Your task to perform on an android device: turn off priority inbox in the gmail app Image 0: 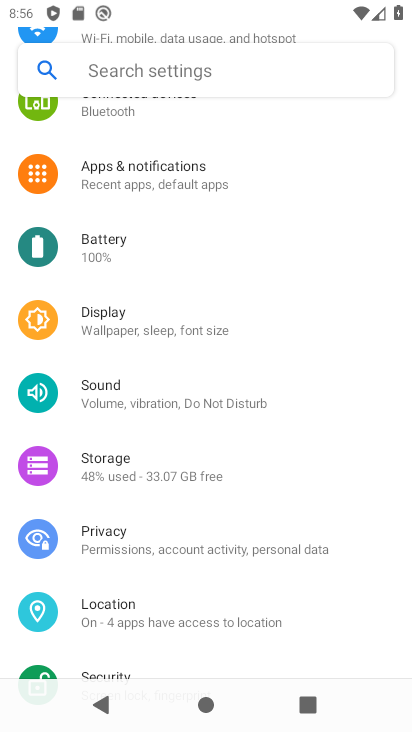
Step 0: press home button
Your task to perform on an android device: turn off priority inbox in the gmail app Image 1: 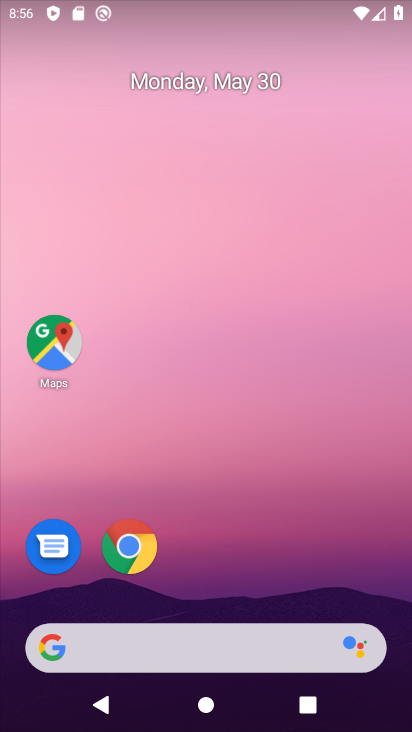
Step 1: drag from (222, 601) to (250, 18)
Your task to perform on an android device: turn off priority inbox in the gmail app Image 2: 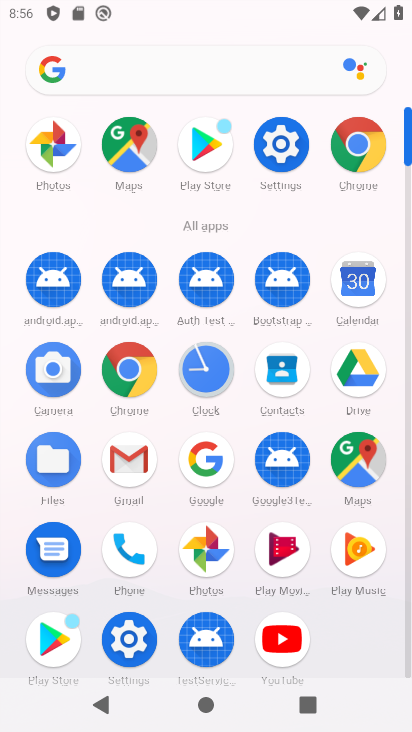
Step 2: click (124, 467)
Your task to perform on an android device: turn off priority inbox in the gmail app Image 3: 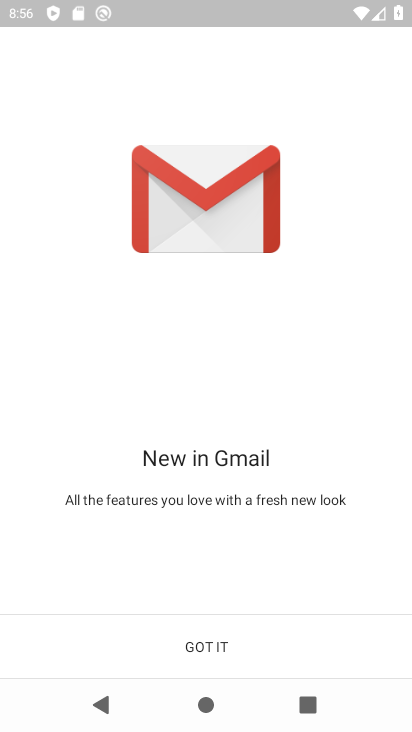
Step 3: click (236, 631)
Your task to perform on an android device: turn off priority inbox in the gmail app Image 4: 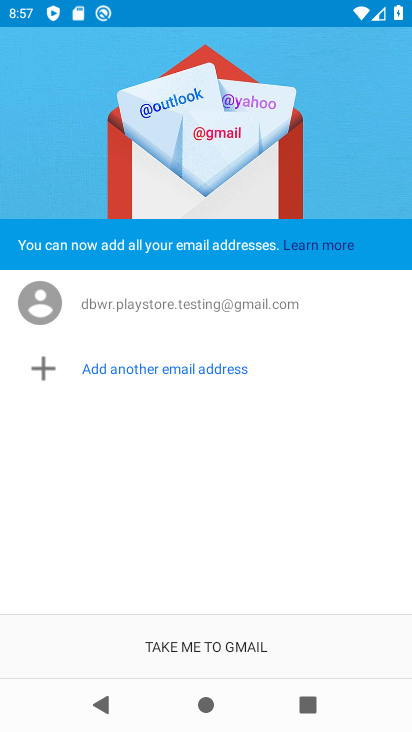
Step 4: click (234, 648)
Your task to perform on an android device: turn off priority inbox in the gmail app Image 5: 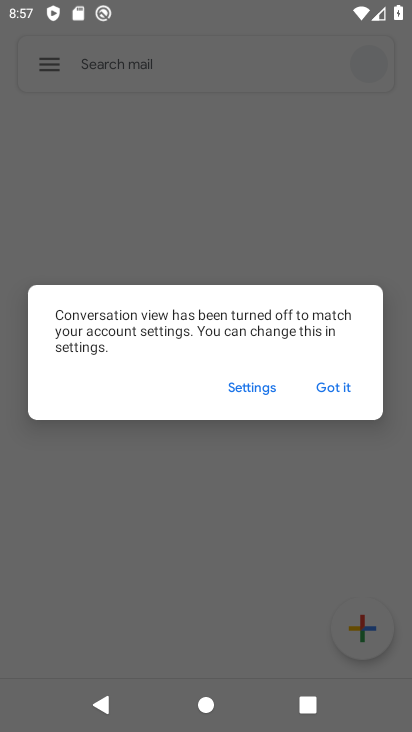
Step 5: click (339, 387)
Your task to perform on an android device: turn off priority inbox in the gmail app Image 6: 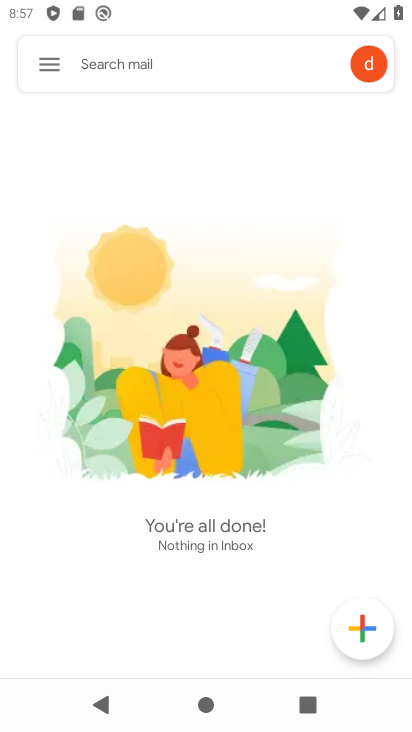
Step 6: click (57, 64)
Your task to perform on an android device: turn off priority inbox in the gmail app Image 7: 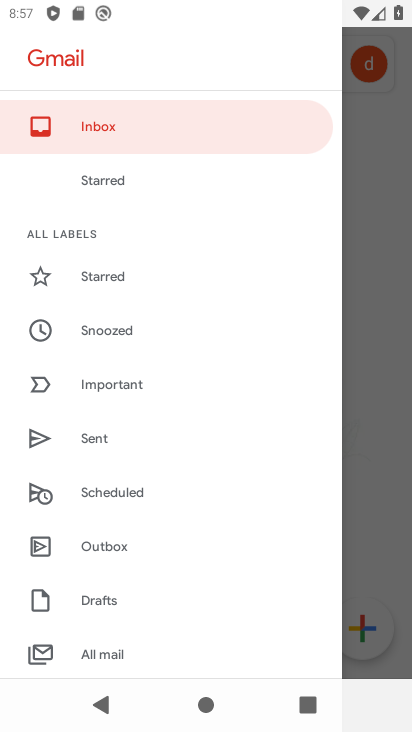
Step 7: drag from (149, 607) to (143, 161)
Your task to perform on an android device: turn off priority inbox in the gmail app Image 8: 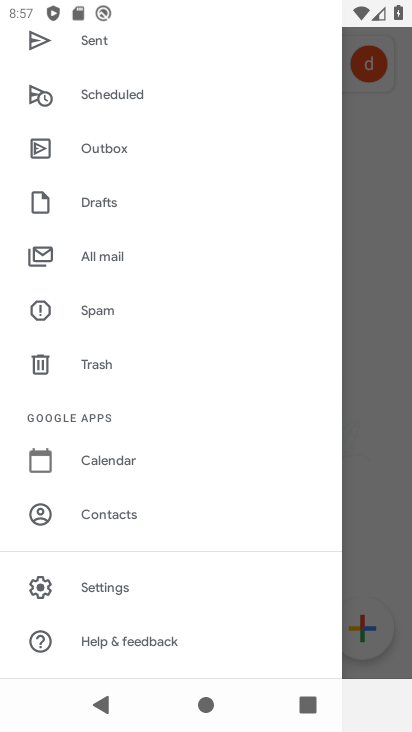
Step 8: click (94, 591)
Your task to perform on an android device: turn off priority inbox in the gmail app Image 9: 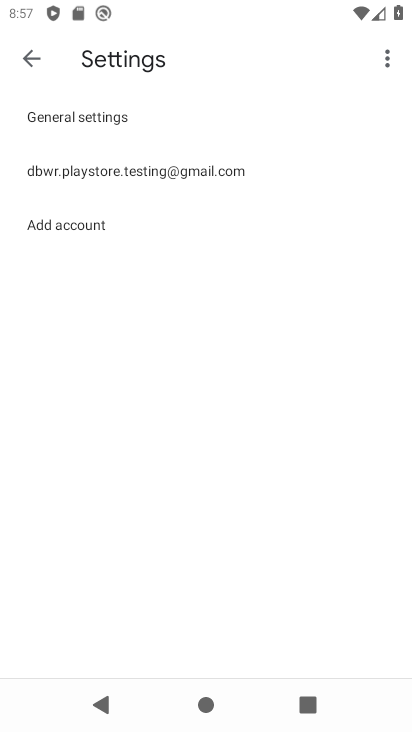
Step 9: click (124, 167)
Your task to perform on an android device: turn off priority inbox in the gmail app Image 10: 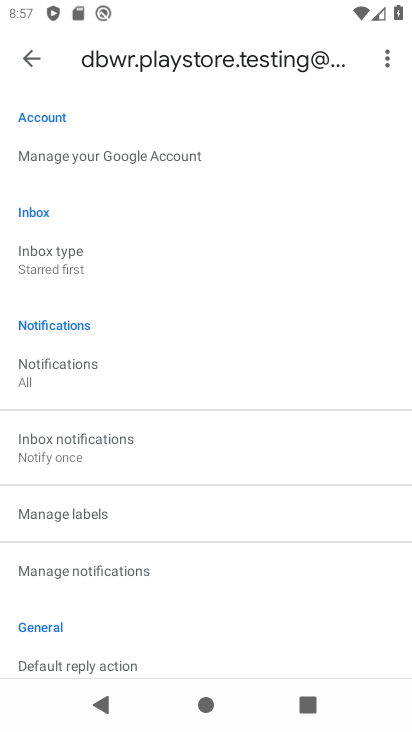
Step 10: drag from (101, 638) to (155, 364)
Your task to perform on an android device: turn off priority inbox in the gmail app Image 11: 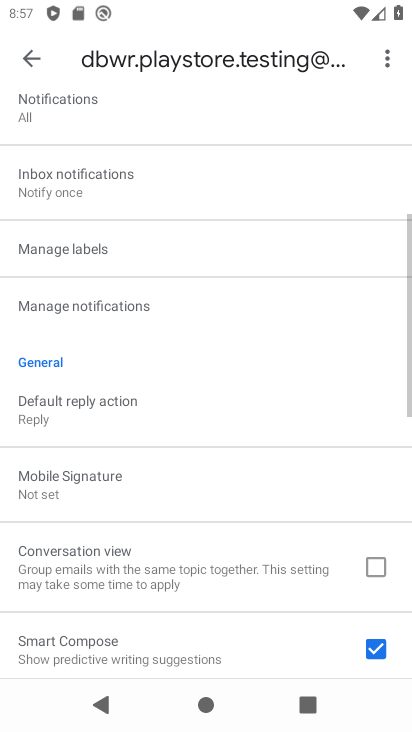
Step 11: drag from (159, 376) to (230, 683)
Your task to perform on an android device: turn off priority inbox in the gmail app Image 12: 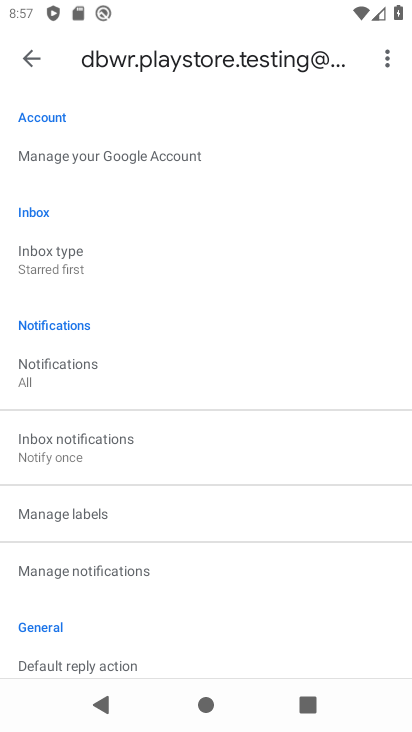
Step 12: click (77, 250)
Your task to perform on an android device: turn off priority inbox in the gmail app Image 13: 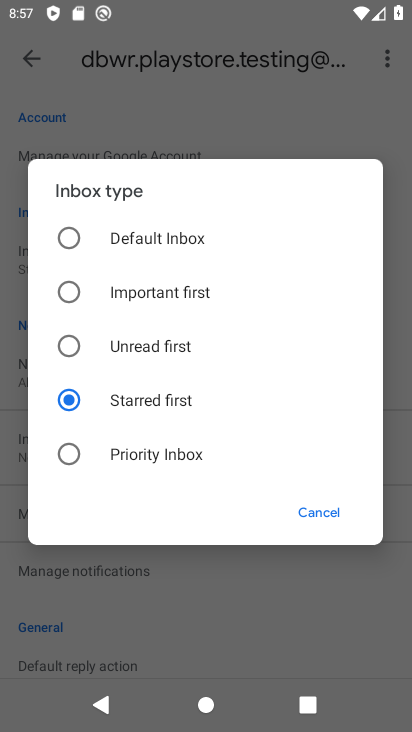
Step 13: click (94, 399)
Your task to perform on an android device: turn off priority inbox in the gmail app Image 14: 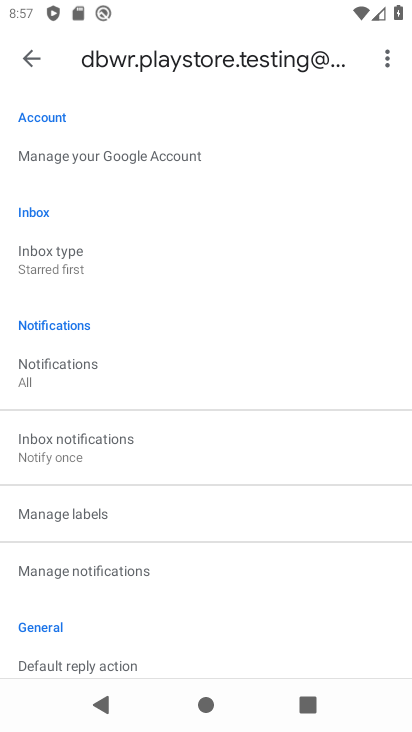
Step 14: task complete